Your task to perform on an android device: turn on showing notifications on the lock screen Image 0: 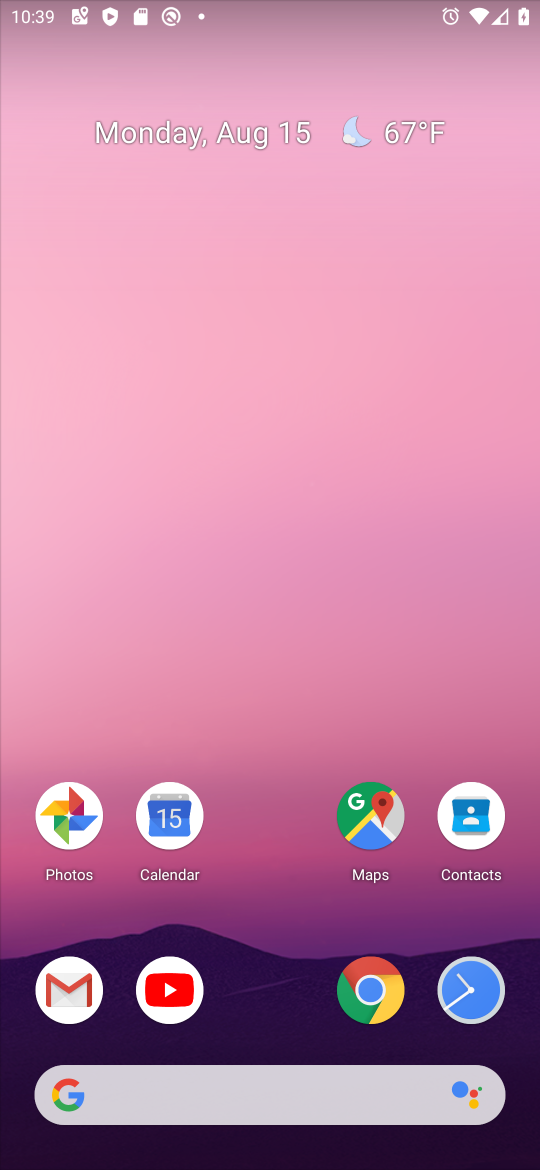
Step 0: drag from (272, 1008) to (265, 223)
Your task to perform on an android device: turn on showing notifications on the lock screen Image 1: 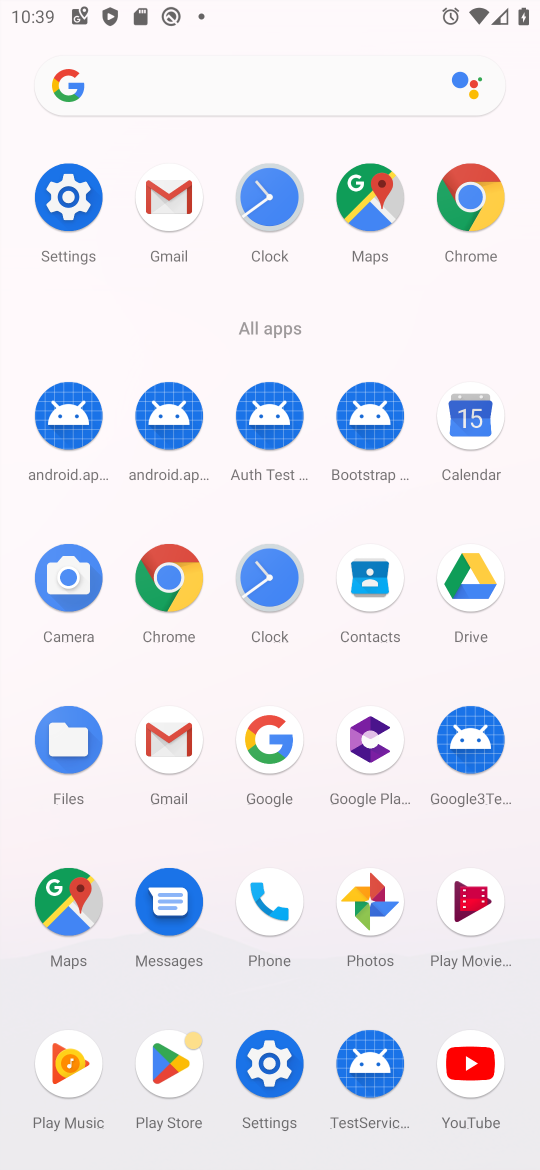
Step 1: click (69, 197)
Your task to perform on an android device: turn on showing notifications on the lock screen Image 2: 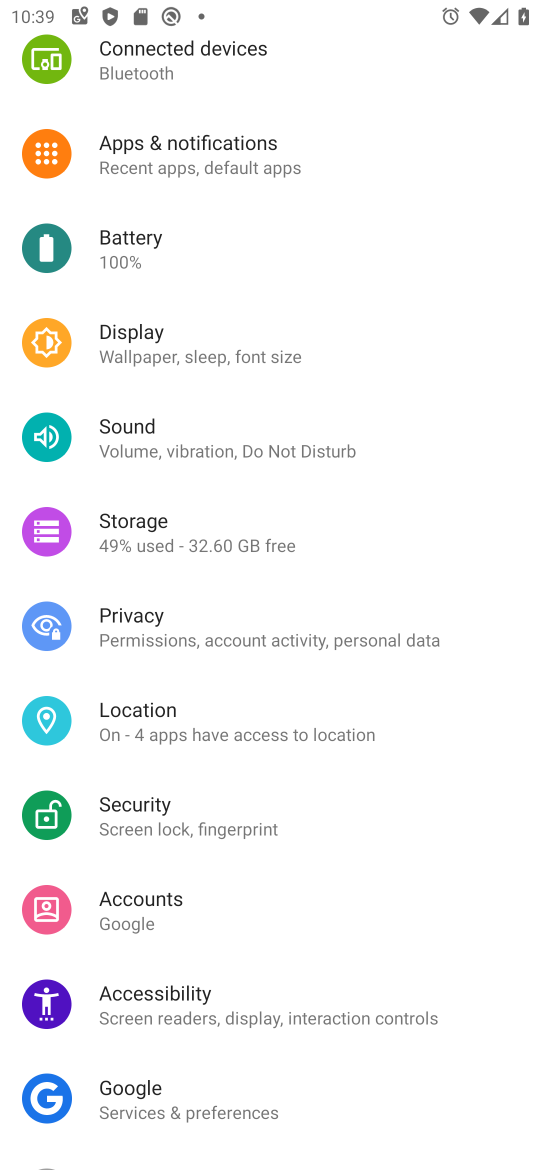
Step 2: click (199, 133)
Your task to perform on an android device: turn on showing notifications on the lock screen Image 3: 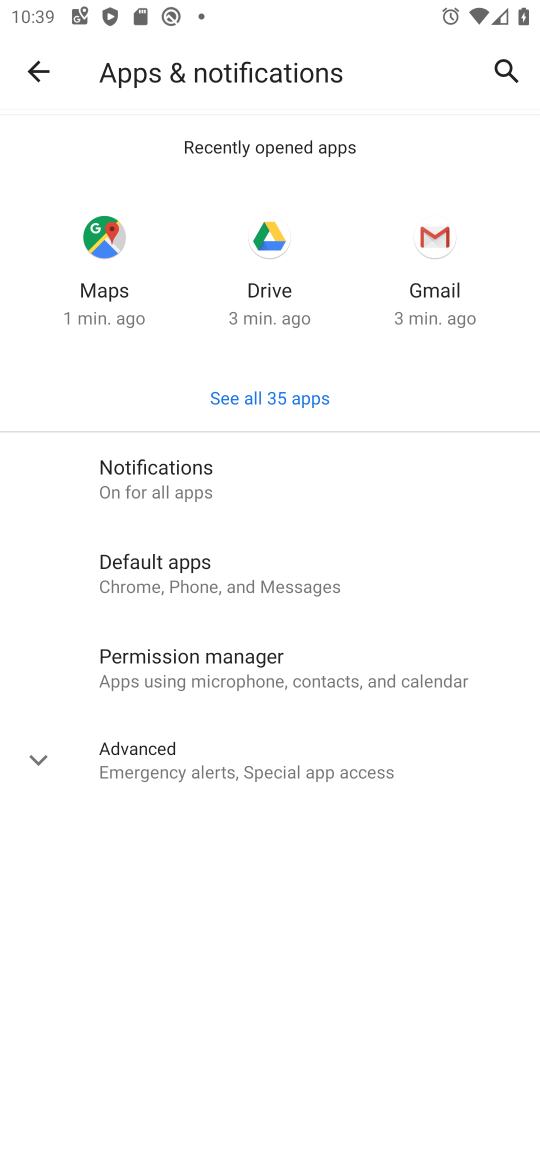
Step 3: click (154, 464)
Your task to perform on an android device: turn on showing notifications on the lock screen Image 4: 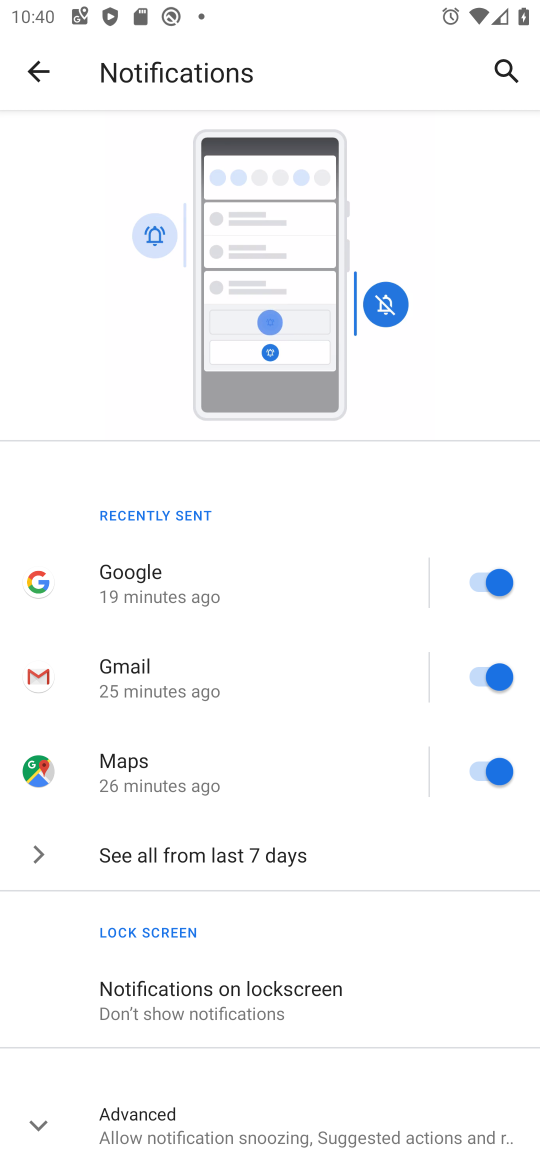
Step 4: click (190, 983)
Your task to perform on an android device: turn on showing notifications on the lock screen Image 5: 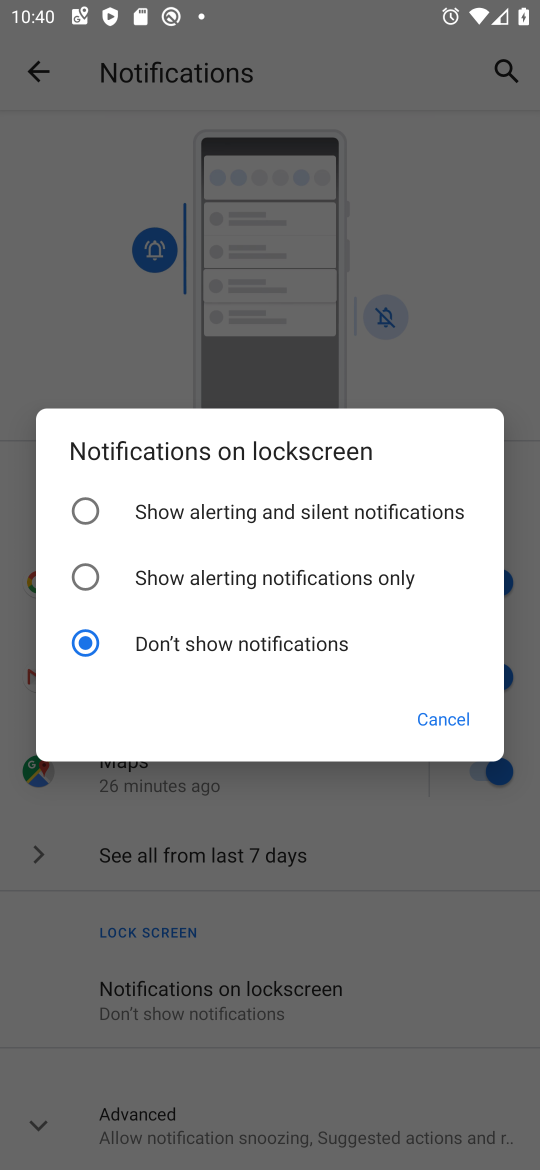
Step 5: click (85, 510)
Your task to perform on an android device: turn on showing notifications on the lock screen Image 6: 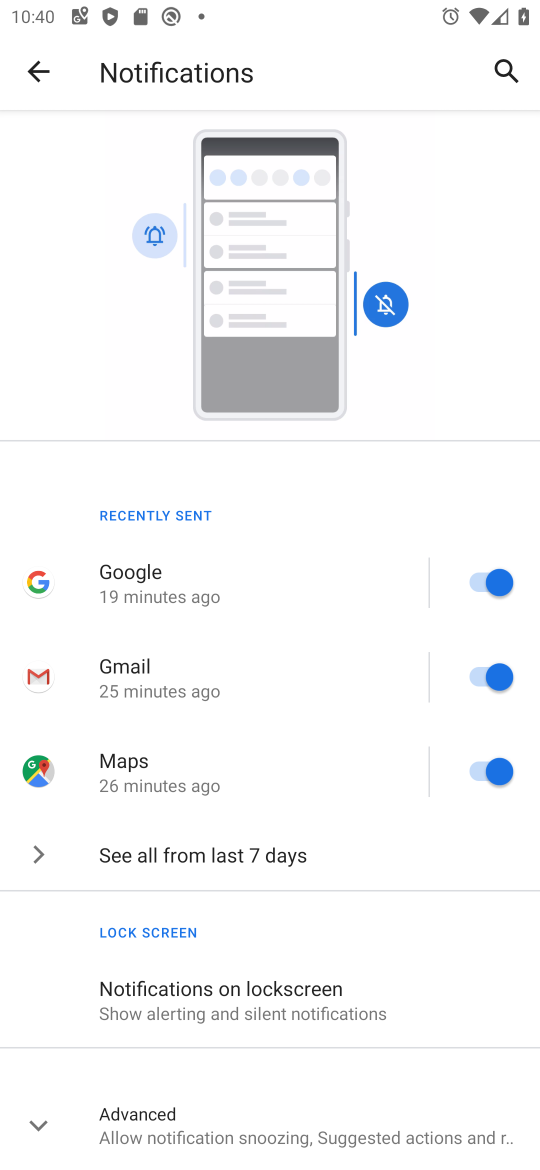
Step 6: task complete